Your task to perform on an android device: Open the phone app and click the voicemail tab. Image 0: 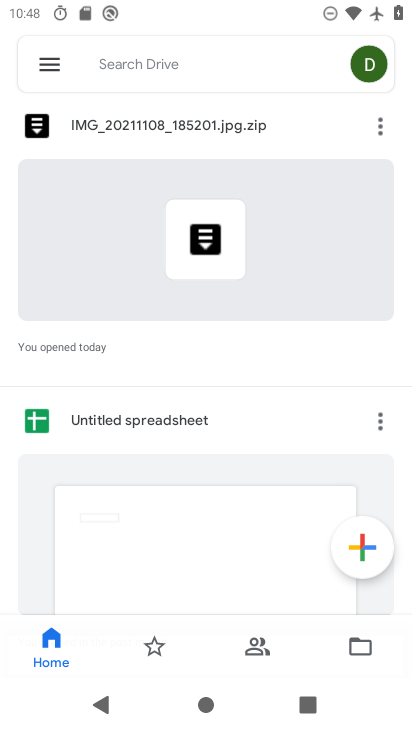
Step 0: press home button
Your task to perform on an android device: Open the phone app and click the voicemail tab. Image 1: 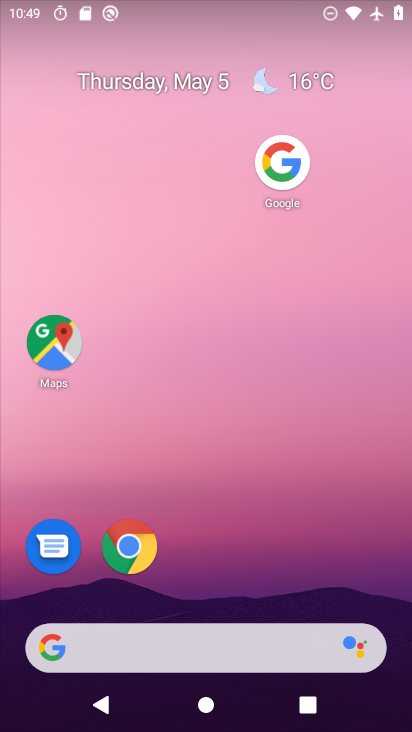
Step 1: drag from (141, 593) to (317, 64)
Your task to perform on an android device: Open the phone app and click the voicemail tab. Image 2: 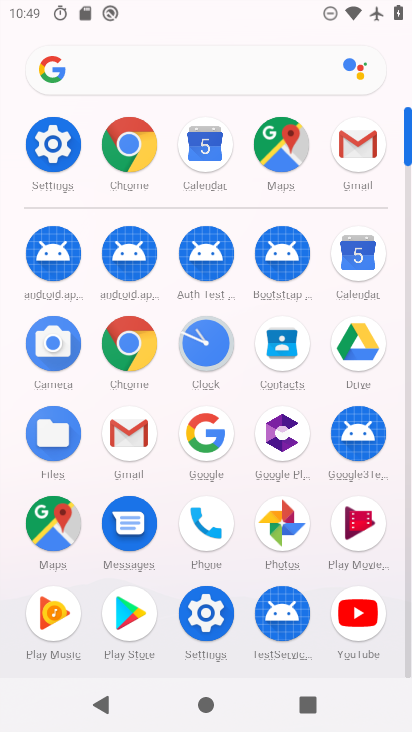
Step 2: click (202, 522)
Your task to perform on an android device: Open the phone app and click the voicemail tab. Image 3: 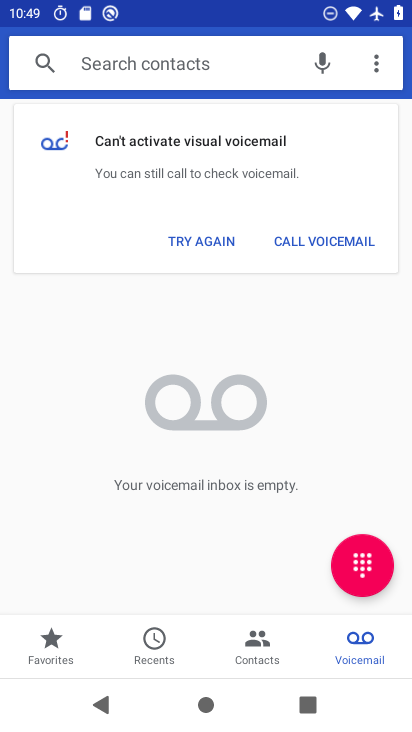
Step 3: click (367, 650)
Your task to perform on an android device: Open the phone app and click the voicemail tab. Image 4: 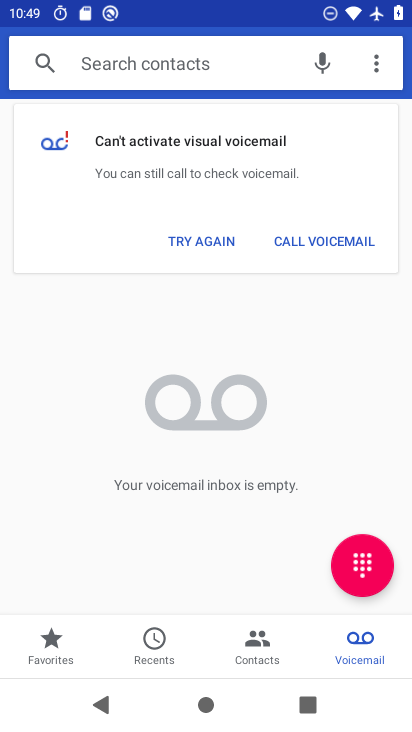
Step 4: task complete